Your task to perform on an android device: clear history in the chrome app Image 0: 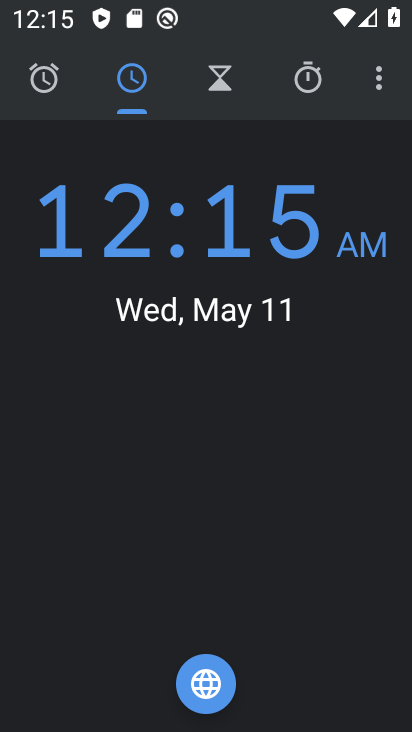
Step 0: press home button
Your task to perform on an android device: clear history in the chrome app Image 1: 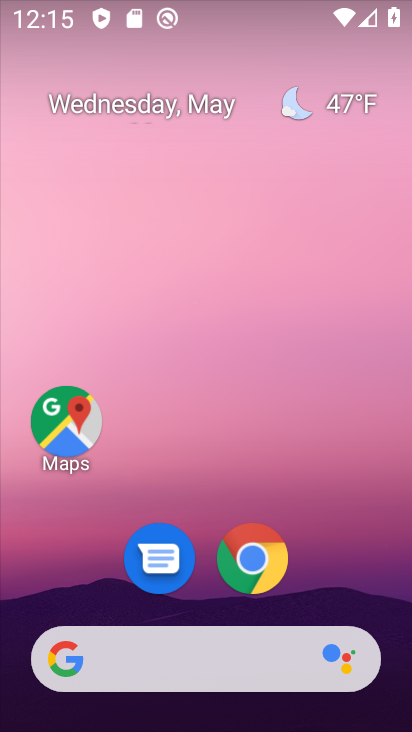
Step 1: click (247, 557)
Your task to perform on an android device: clear history in the chrome app Image 2: 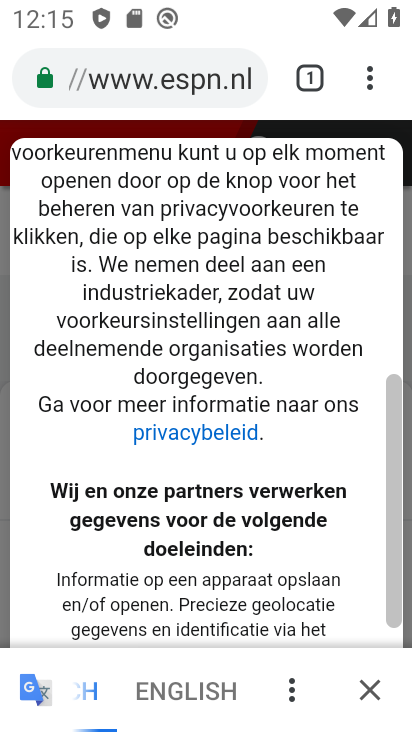
Step 2: click (371, 86)
Your task to perform on an android device: clear history in the chrome app Image 3: 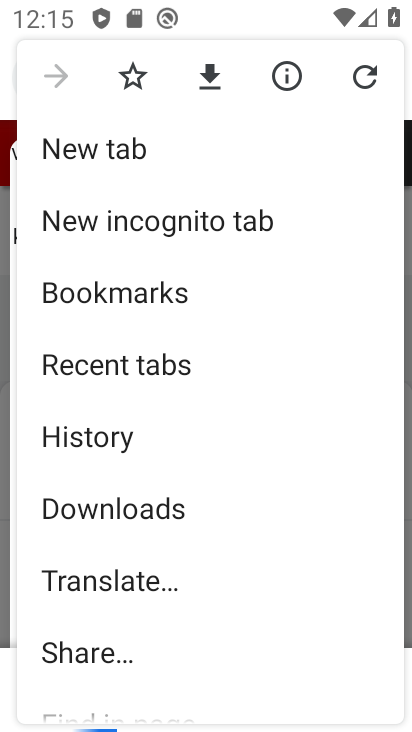
Step 3: click (95, 437)
Your task to perform on an android device: clear history in the chrome app Image 4: 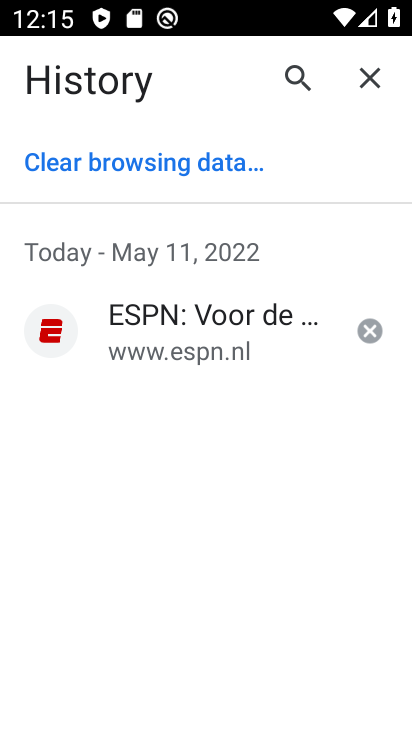
Step 4: click (163, 166)
Your task to perform on an android device: clear history in the chrome app Image 5: 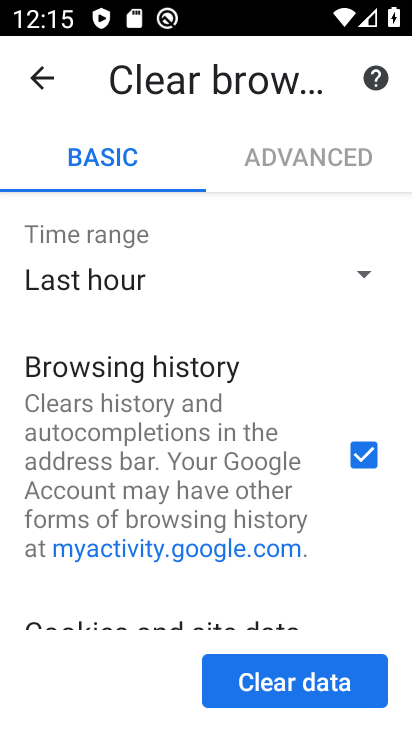
Step 5: drag from (178, 582) to (204, 255)
Your task to perform on an android device: clear history in the chrome app Image 6: 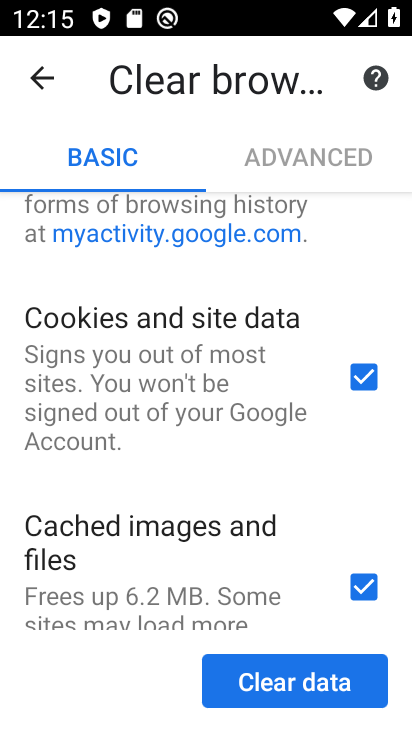
Step 6: click (361, 589)
Your task to perform on an android device: clear history in the chrome app Image 7: 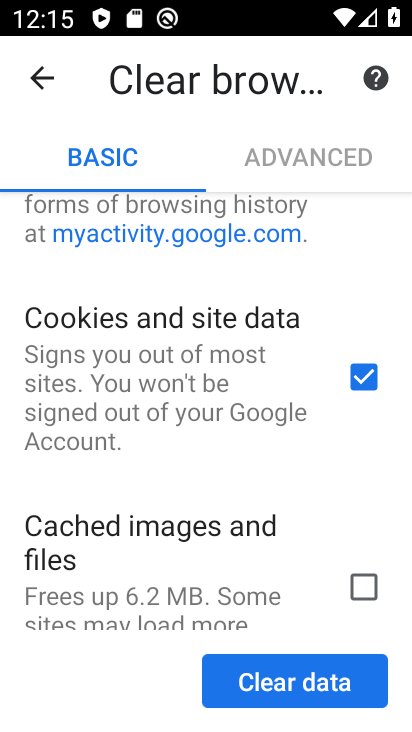
Step 7: click (362, 377)
Your task to perform on an android device: clear history in the chrome app Image 8: 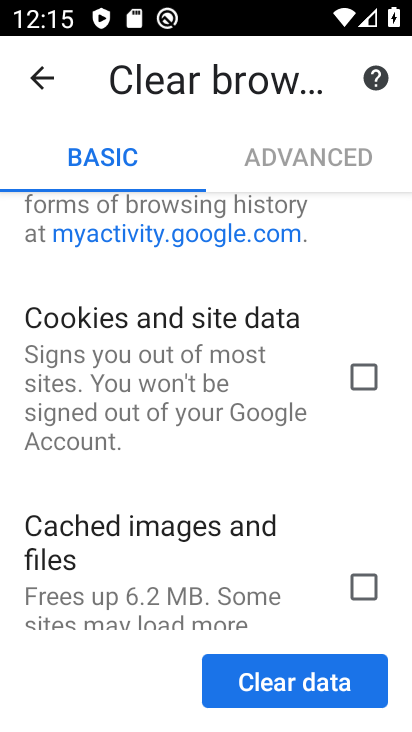
Step 8: task complete